Your task to perform on an android device: Open Chrome and go to settings Image 0: 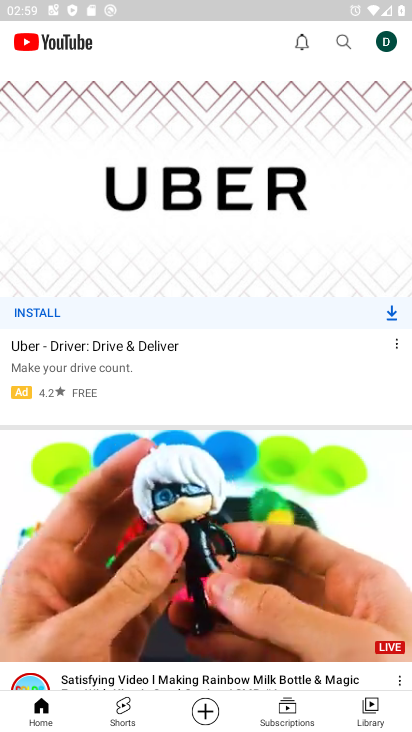
Step 0: press home button
Your task to perform on an android device: Open Chrome and go to settings Image 1: 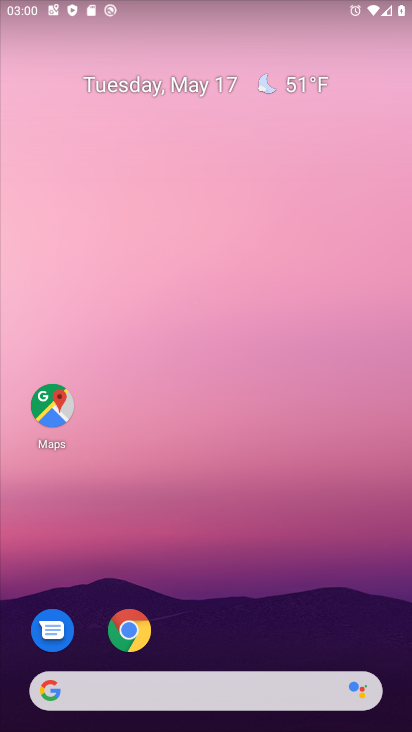
Step 1: click (133, 643)
Your task to perform on an android device: Open Chrome and go to settings Image 2: 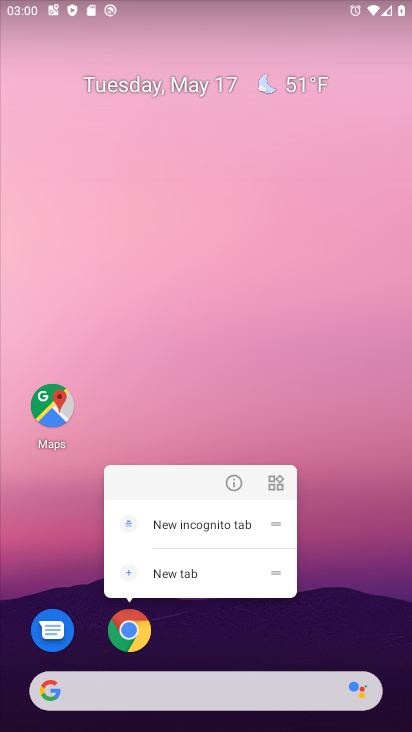
Step 2: click (131, 632)
Your task to perform on an android device: Open Chrome and go to settings Image 3: 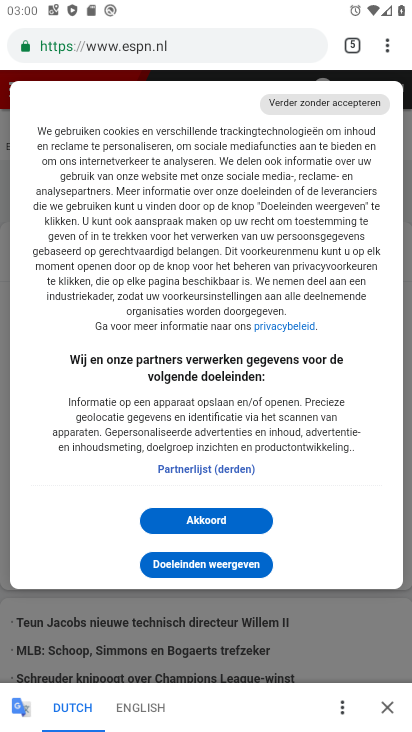
Step 3: task complete